Your task to perform on an android device: uninstall "Lyft - Rideshare, Bikes, Scooters & Transit" Image 0: 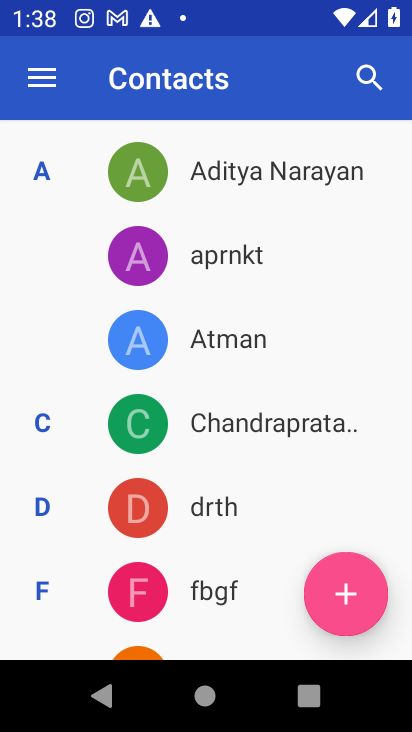
Step 0: press home button
Your task to perform on an android device: uninstall "Lyft - Rideshare, Bikes, Scooters & Transit" Image 1: 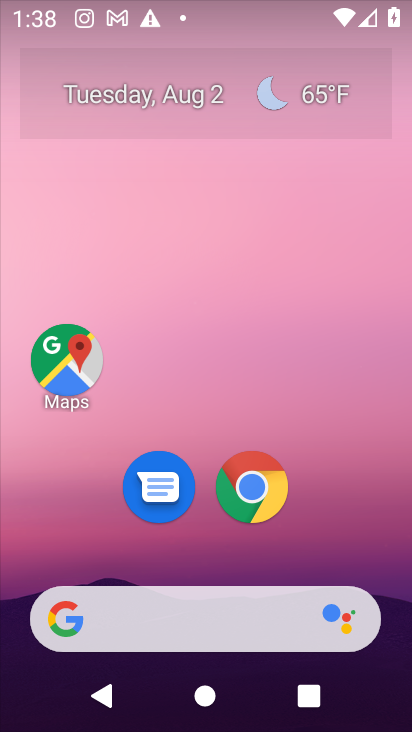
Step 1: drag from (243, 409) to (258, 145)
Your task to perform on an android device: uninstall "Lyft - Rideshare, Bikes, Scooters & Transit" Image 2: 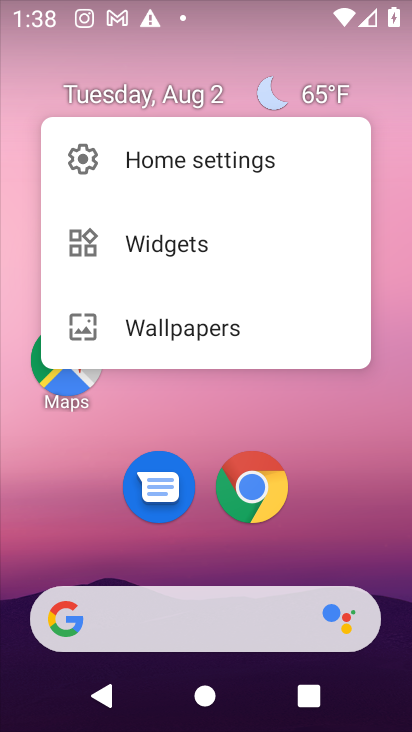
Step 2: click (358, 466)
Your task to perform on an android device: uninstall "Lyft - Rideshare, Bikes, Scooters & Transit" Image 3: 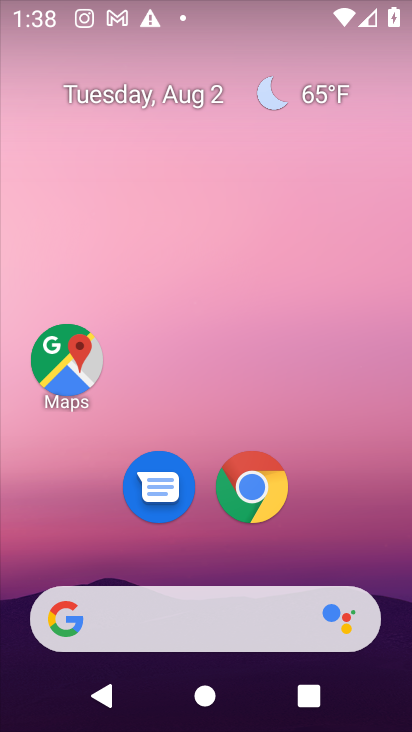
Step 3: click (234, 163)
Your task to perform on an android device: uninstall "Lyft - Rideshare, Bikes, Scooters & Transit" Image 4: 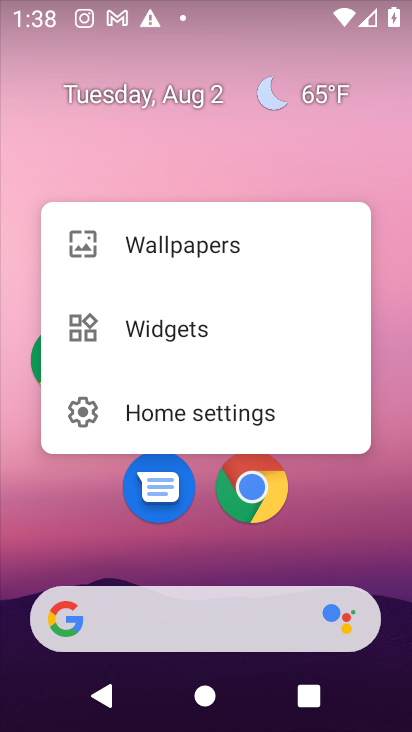
Step 4: click (373, 166)
Your task to perform on an android device: uninstall "Lyft - Rideshare, Bikes, Scooters & Transit" Image 5: 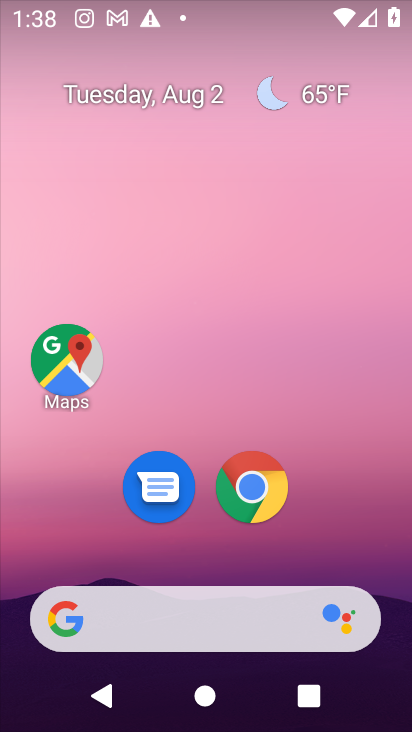
Step 5: drag from (196, 692) to (326, 96)
Your task to perform on an android device: uninstall "Lyft - Rideshare, Bikes, Scooters & Transit" Image 6: 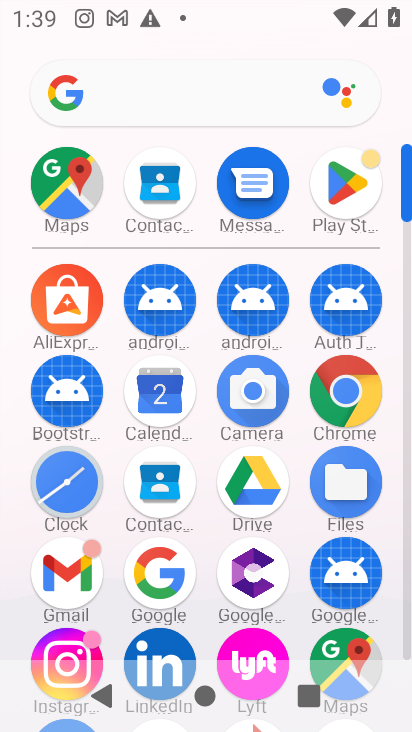
Step 6: click (357, 196)
Your task to perform on an android device: uninstall "Lyft - Rideshare, Bikes, Scooters & Transit" Image 7: 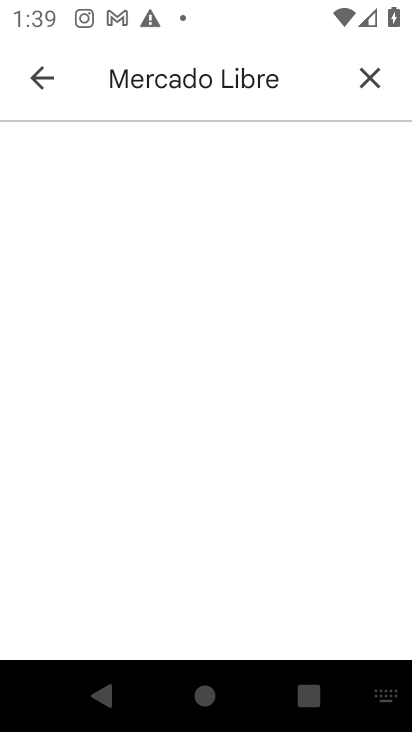
Step 7: click (370, 77)
Your task to perform on an android device: uninstall "Lyft - Rideshare, Bikes, Scooters & Transit" Image 8: 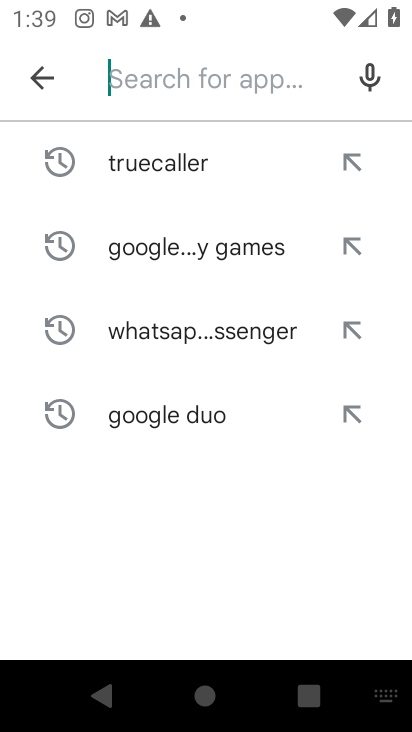
Step 8: type "Lyft - Rideshare, Bikes, Scooters & Transit"
Your task to perform on an android device: uninstall "Lyft - Rideshare, Bikes, Scooters & Transit" Image 9: 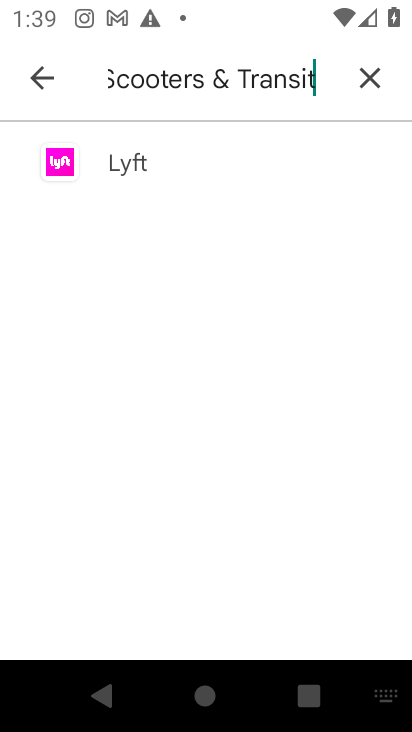
Step 9: type ""
Your task to perform on an android device: uninstall "Lyft - Rideshare, Bikes, Scooters & Transit" Image 10: 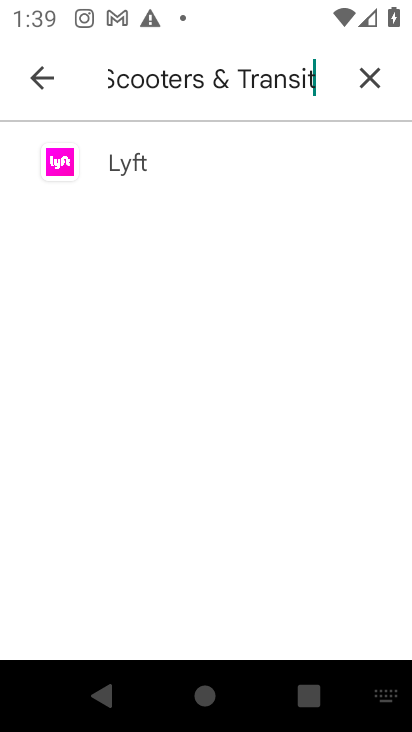
Step 10: click (147, 175)
Your task to perform on an android device: uninstall "Lyft - Rideshare, Bikes, Scooters & Transit" Image 11: 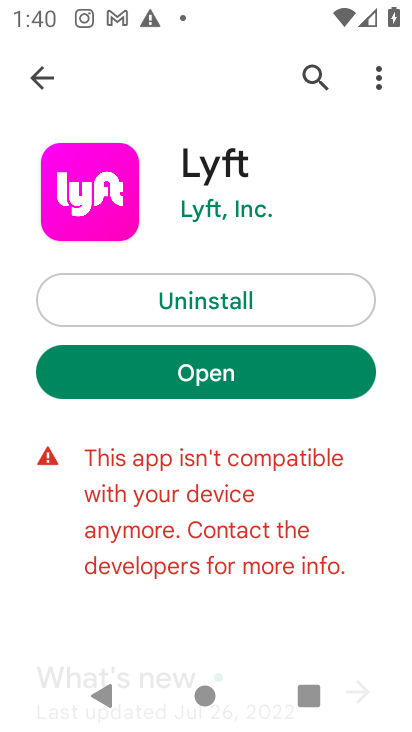
Step 11: click (235, 275)
Your task to perform on an android device: uninstall "Lyft - Rideshare, Bikes, Scooters & Transit" Image 12: 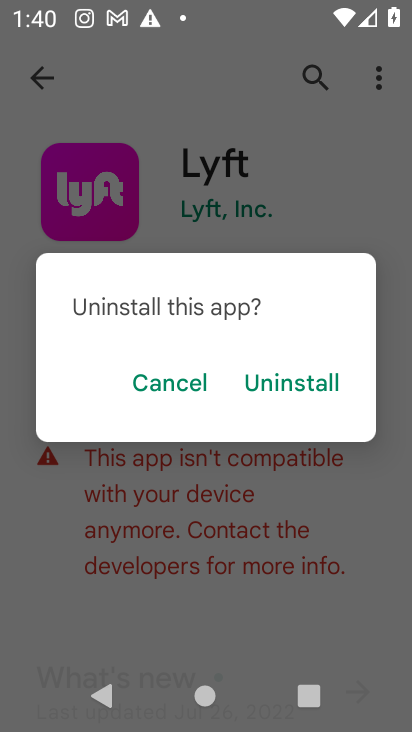
Step 12: click (290, 381)
Your task to perform on an android device: uninstall "Lyft - Rideshare, Bikes, Scooters & Transit" Image 13: 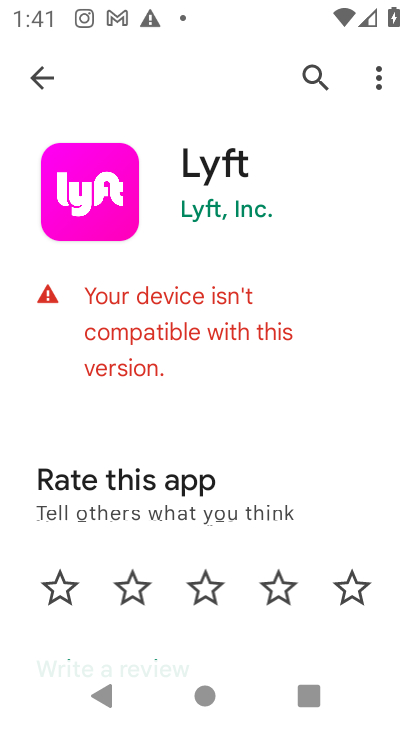
Step 13: task complete